Your task to perform on an android device: Open the Play Movies app and select the watchlist tab. Image 0: 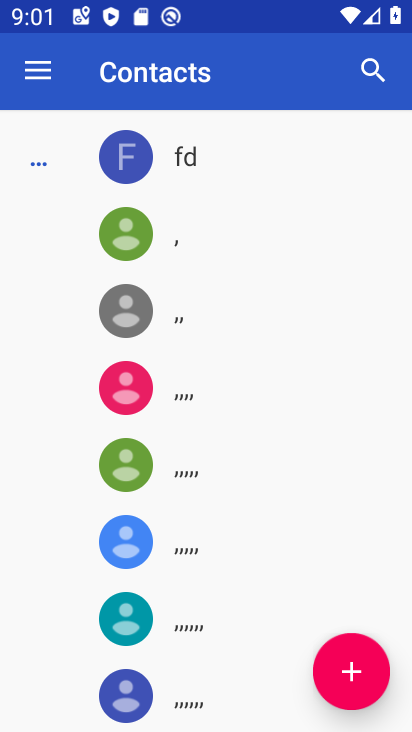
Step 0: press home button
Your task to perform on an android device: Open the Play Movies app and select the watchlist tab. Image 1: 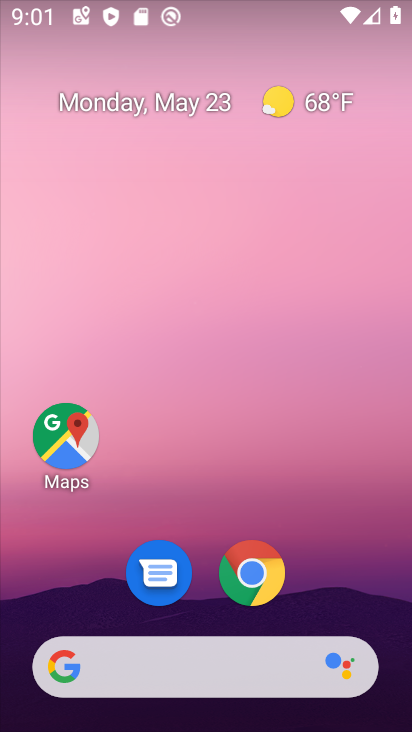
Step 1: drag from (353, 619) to (394, 337)
Your task to perform on an android device: Open the Play Movies app and select the watchlist tab. Image 2: 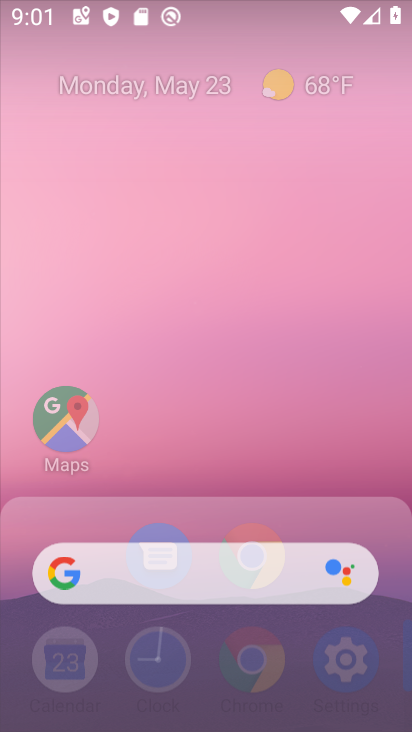
Step 2: drag from (355, 563) to (367, 342)
Your task to perform on an android device: Open the Play Movies app and select the watchlist tab. Image 3: 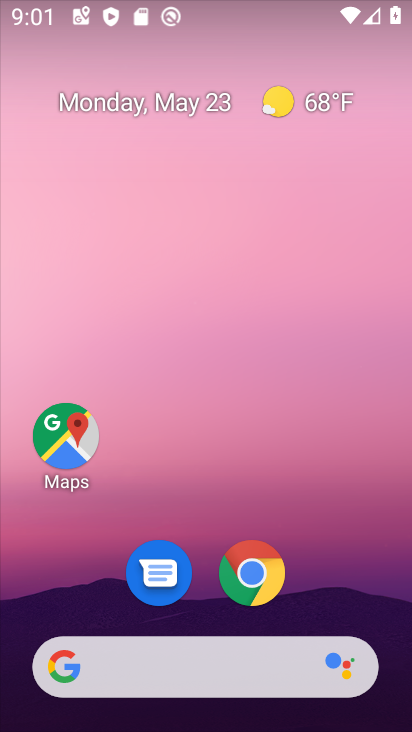
Step 3: drag from (349, 512) to (389, 11)
Your task to perform on an android device: Open the Play Movies app and select the watchlist tab. Image 4: 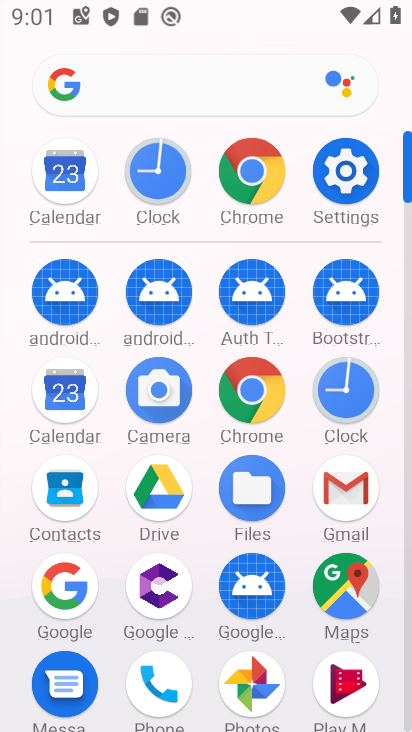
Step 4: drag from (293, 479) to (306, 225)
Your task to perform on an android device: Open the Play Movies app and select the watchlist tab. Image 5: 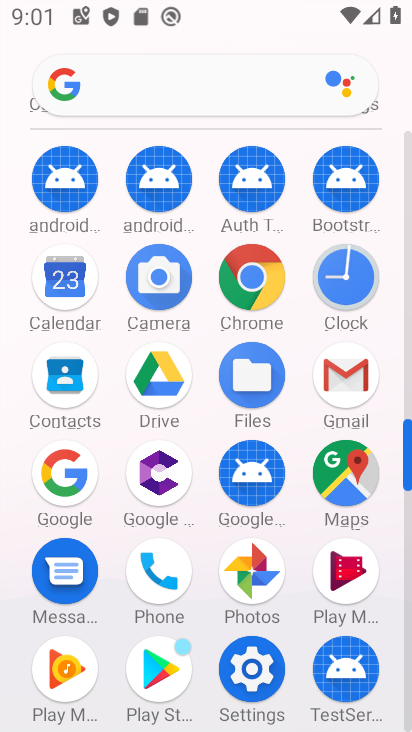
Step 5: drag from (296, 525) to (291, 327)
Your task to perform on an android device: Open the Play Movies app and select the watchlist tab. Image 6: 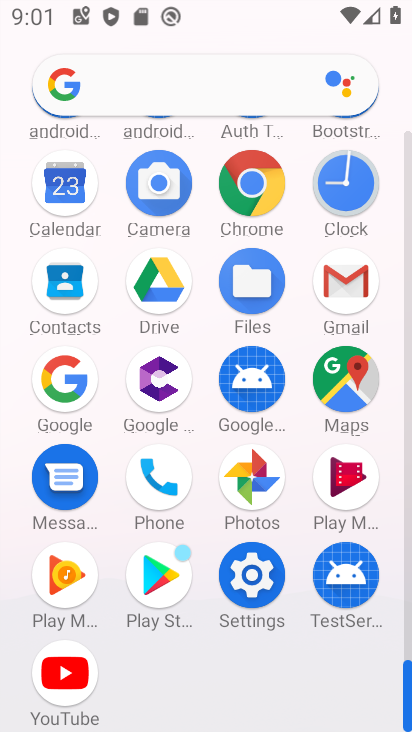
Step 6: click (341, 496)
Your task to perform on an android device: Open the Play Movies app and select the watchlist tab. Image 7: 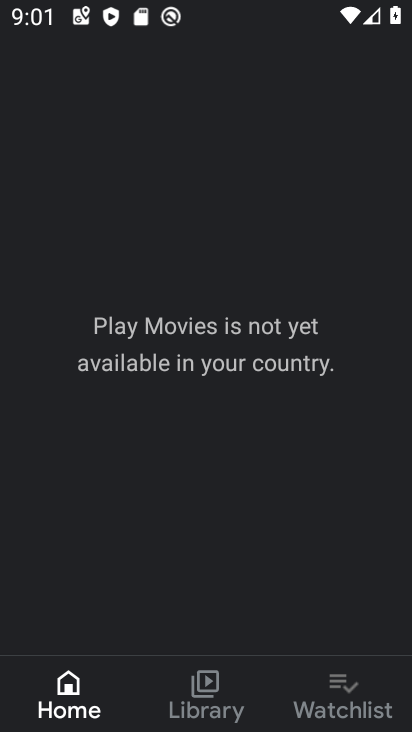
Step 7: click (353, 699)
Your task to perform on an android device: Open the Play Movies app and select the watchlist tab. Image 8: 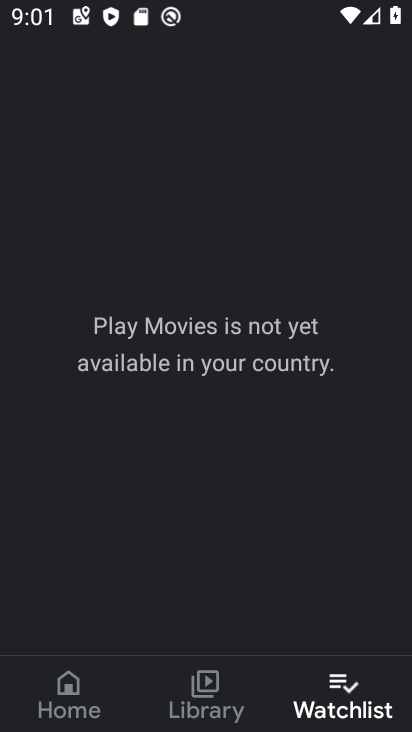
Step 8: task complete